Your task to perform on an android device: delete location history Image 0: 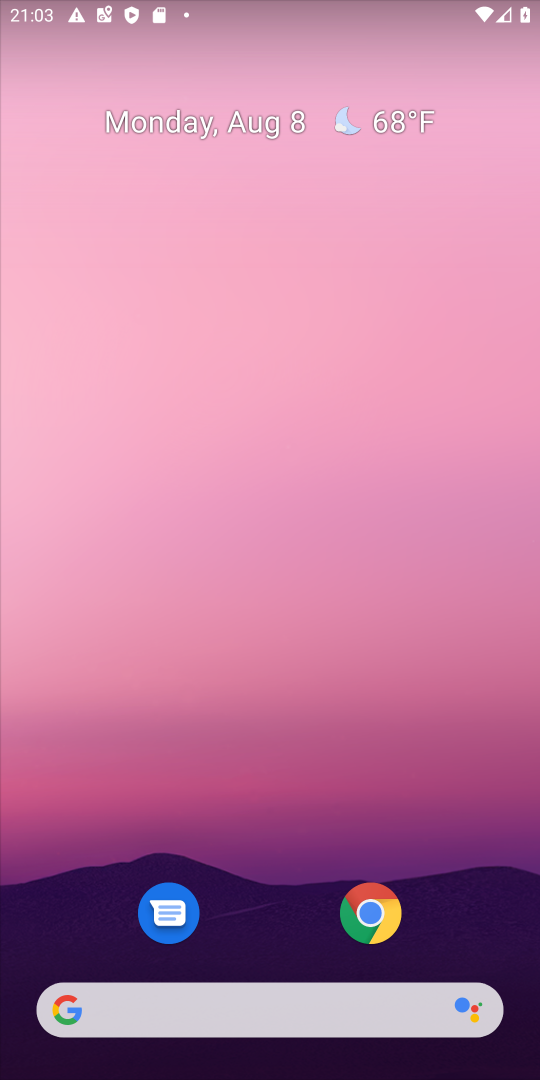
Step 0: drag from (230, 996) to (385, 182)
Your task to perform on an android device: delete location history Image 1: 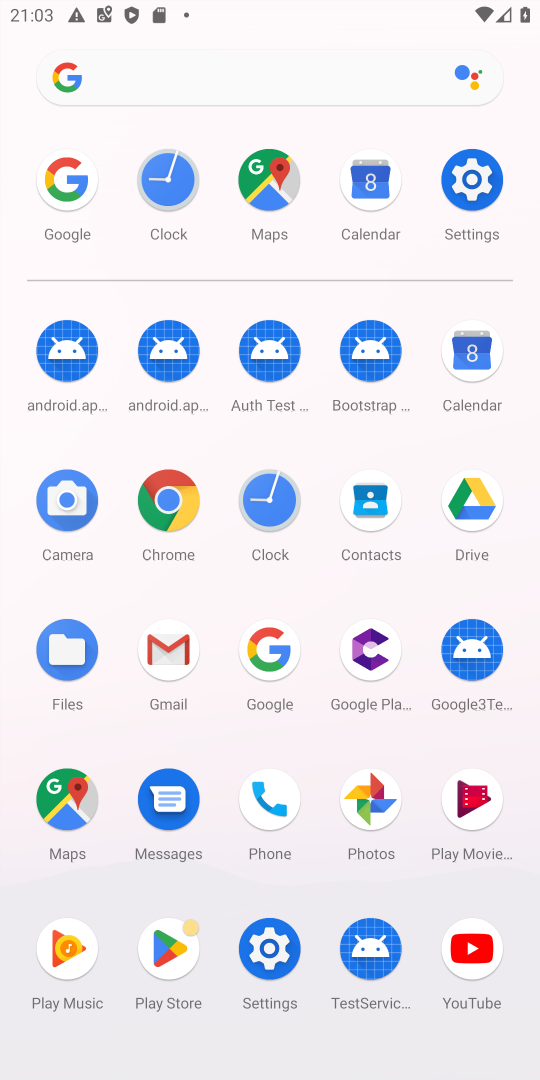
Step 1: click (268, 182)
Your task to perform on an android device: delete location history Image 2: 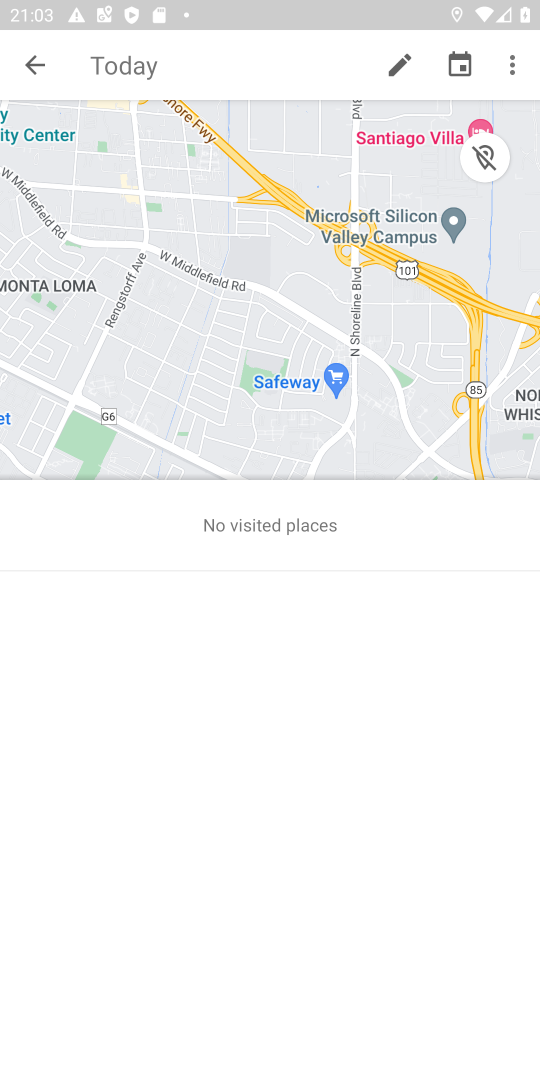
Step 2: press back button
Your task to perform on an android device: delete location history Image 3: 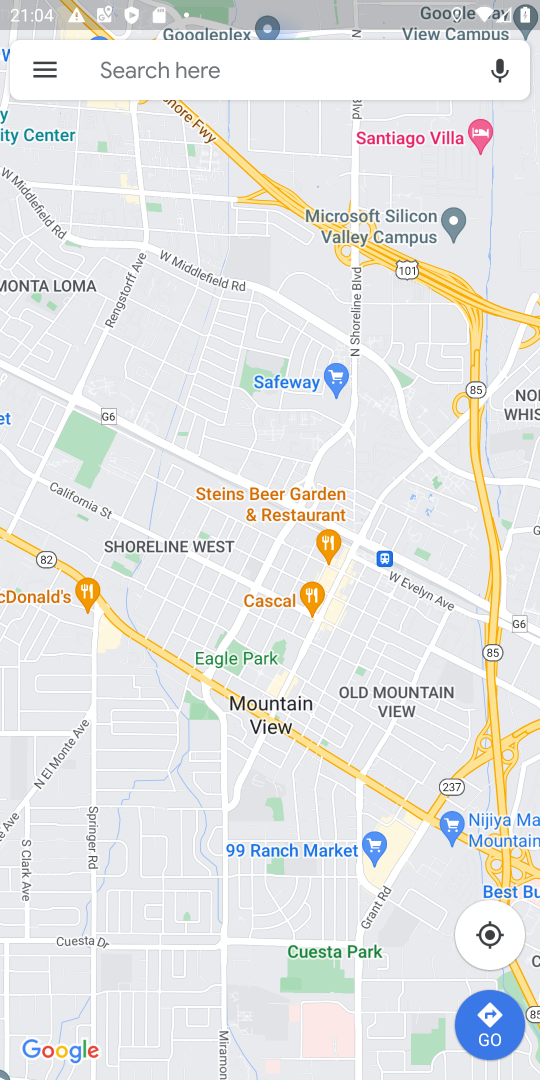
Step 3: click (45, 74)
Your task to perform on an android device: delete location history Image 4: 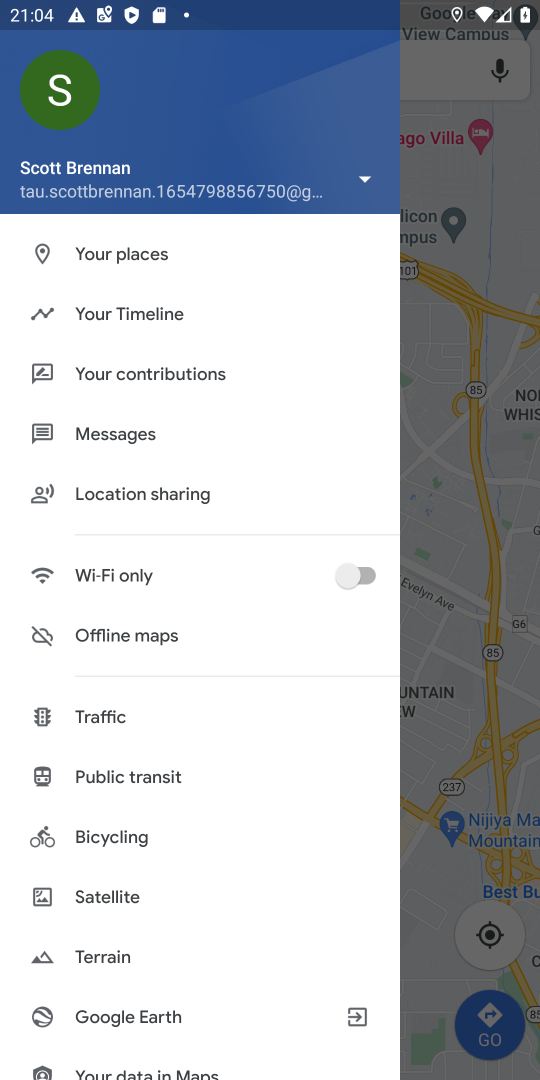
Step 4: drag from (122, 757) to (124, 610)
Your task to perform on an android device: delete location history Image 5: 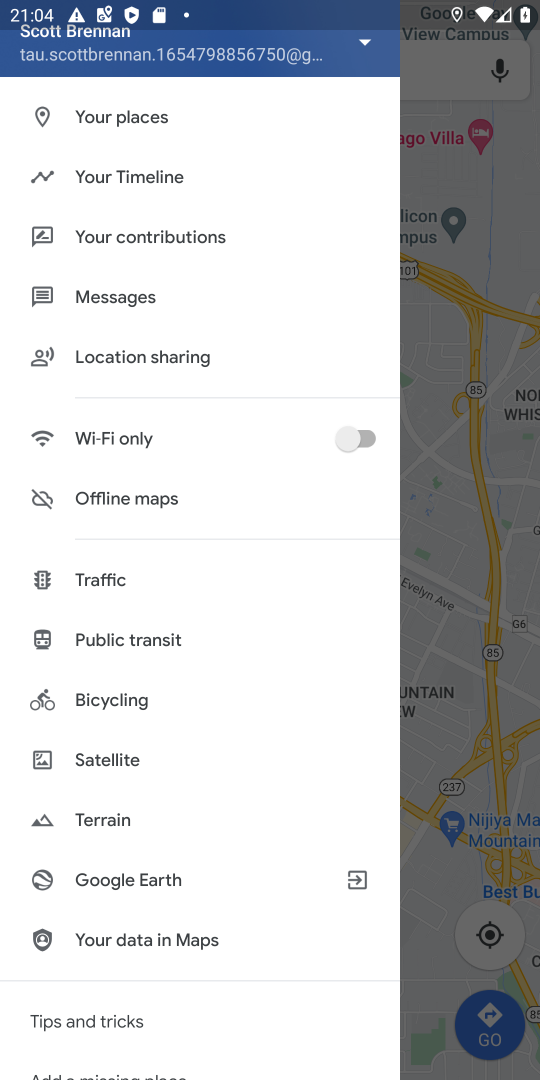
Step 5: drag from (112, 790) to (134, 614)
Your task to perform on an android device: delete location history Image 6: 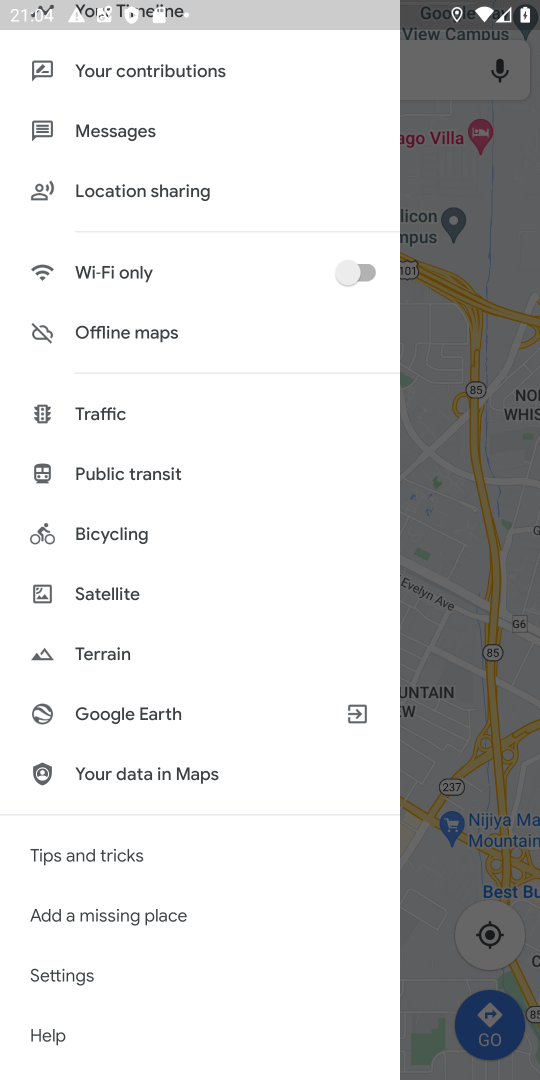
Step 6: click (57, 971)
Your task to perform on an android device: delete location history Image 7: 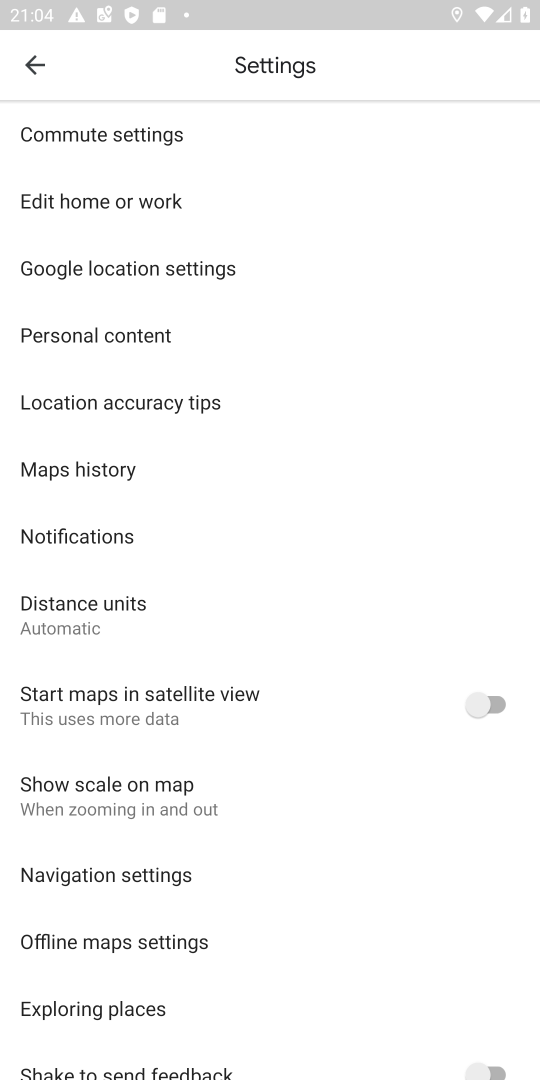
Step 7: click (138, 336)
Your task to perform on an android device: delete location history Image 8: 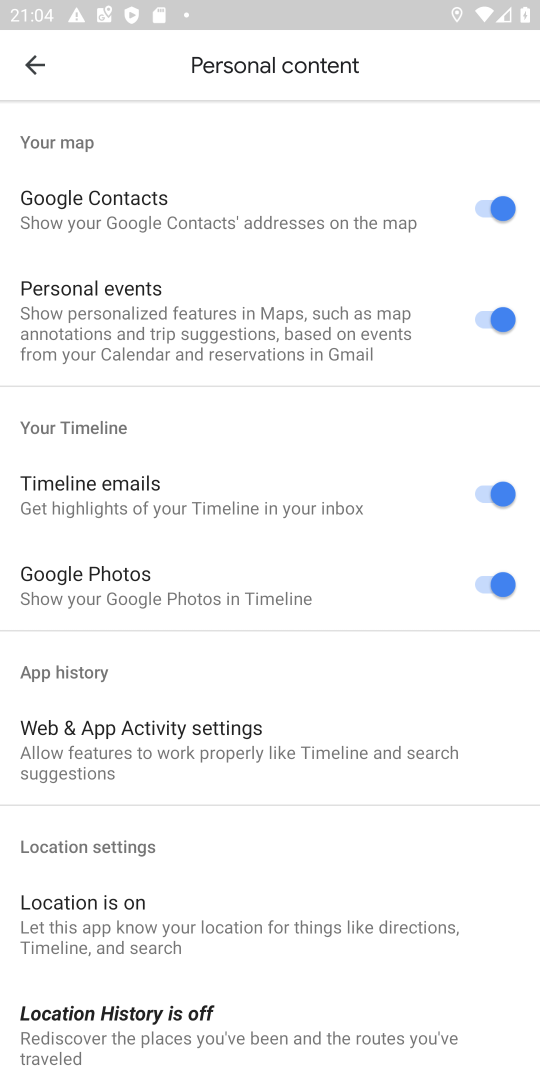
Step 8: drag from (178, 850) to (230, 570)
Your task to perform on an android device: delete location history Image 9: 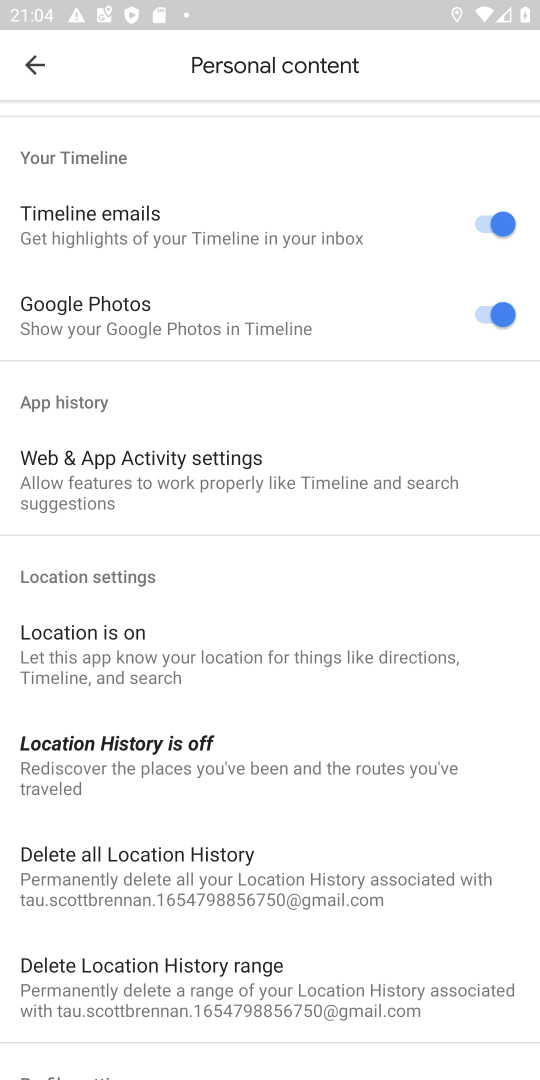
Step 9: click (193, 852)
Your task to perform on an android device: delete location history Image 10: 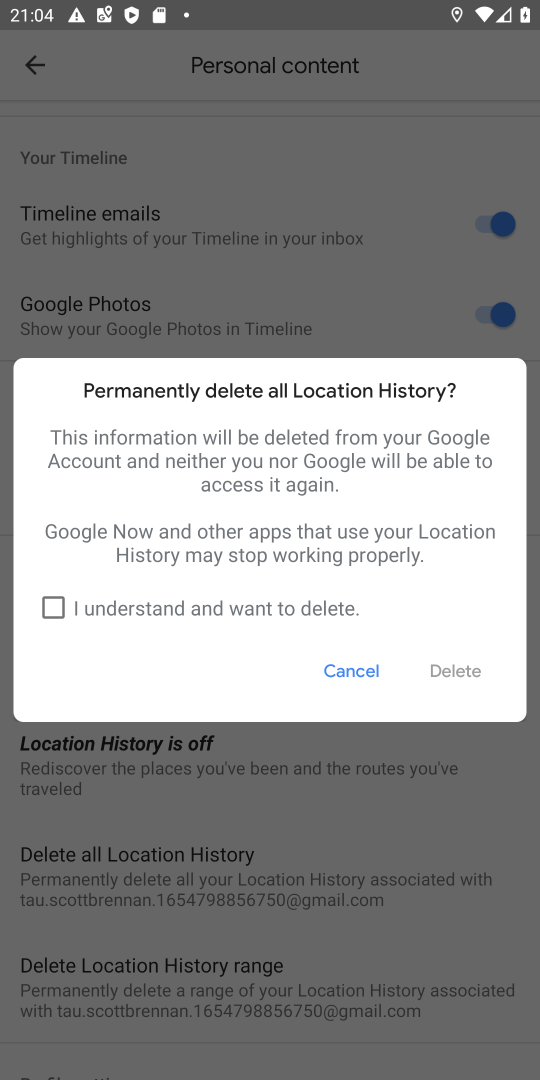
Step 10: click (48, 609)
Your task to perform on an android device: delete location history Image 11: 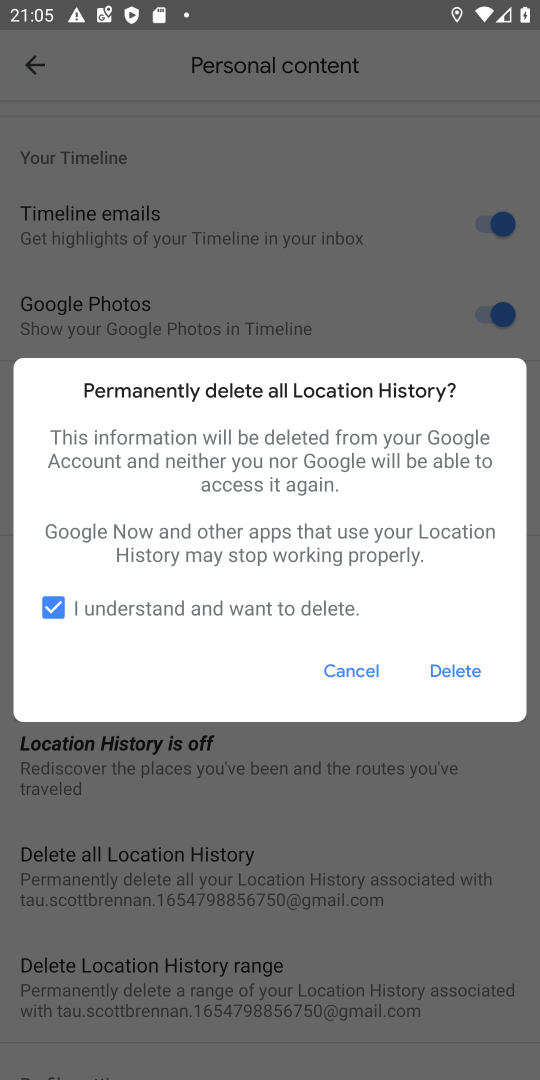
Step 11: click (463, 671)
Your task to perform on an android device: delete location history Image 12: 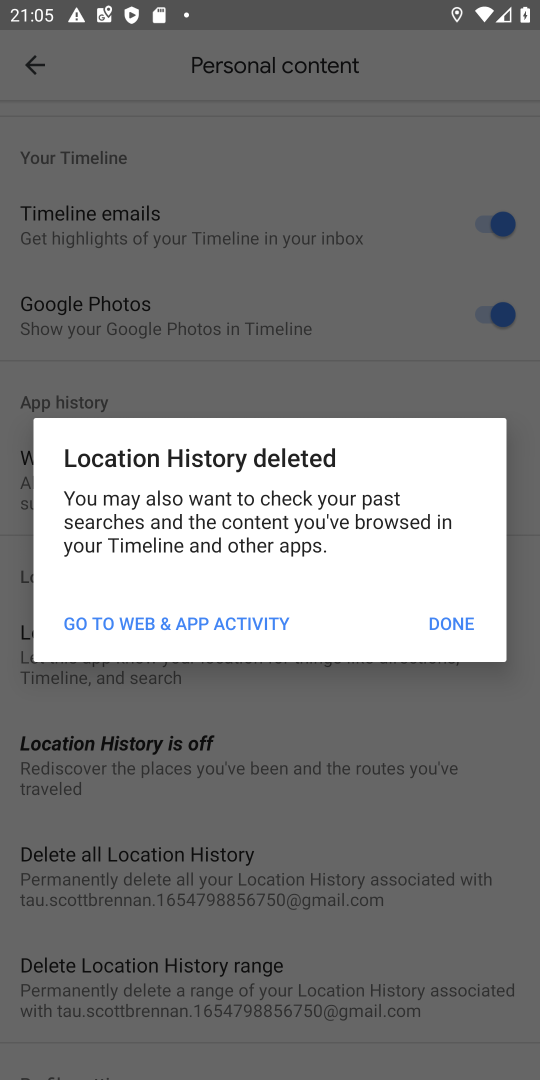
Step 12: click (455, 627)
Your task to perform on an android device: delete location history Image 13: 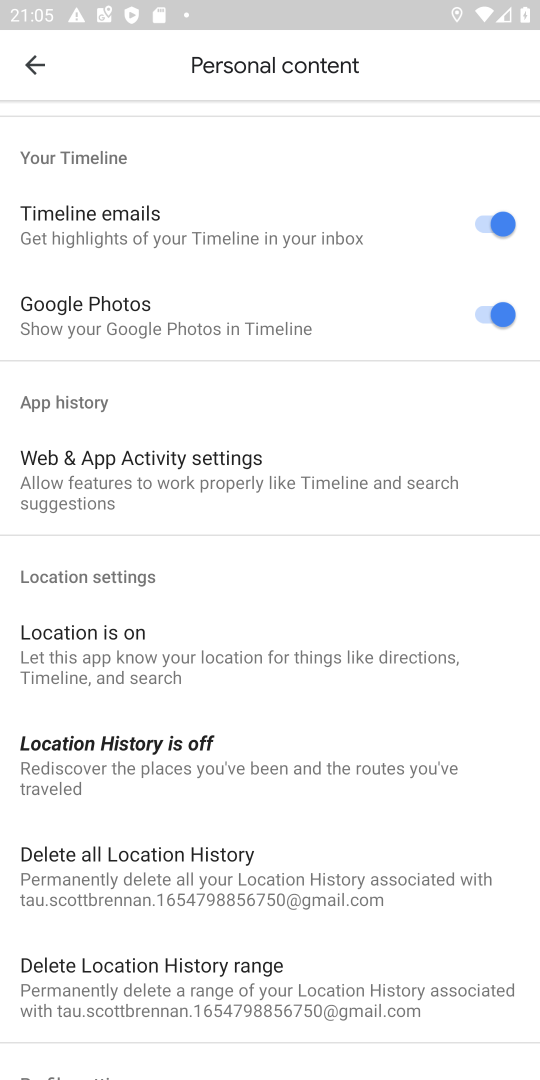
Step 13: task complete